Your task to perform on an android device: Set the phone to "Do not disturb". Image 0: 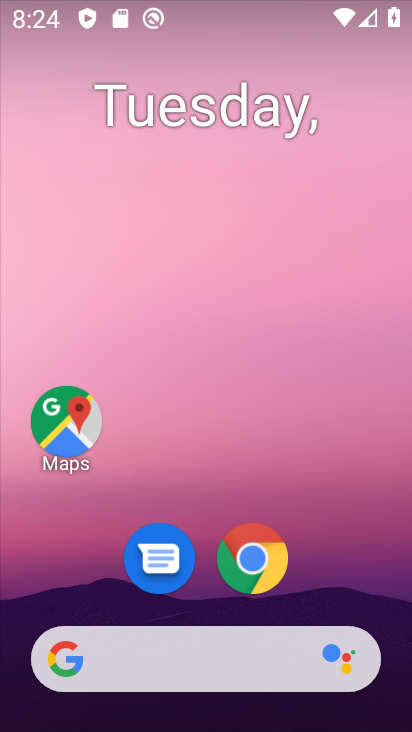
Step 0: drag from (201, 599) to (214, 236)
Your task to perform on an android device: Set the phone to "Do not disturb". Image 1: 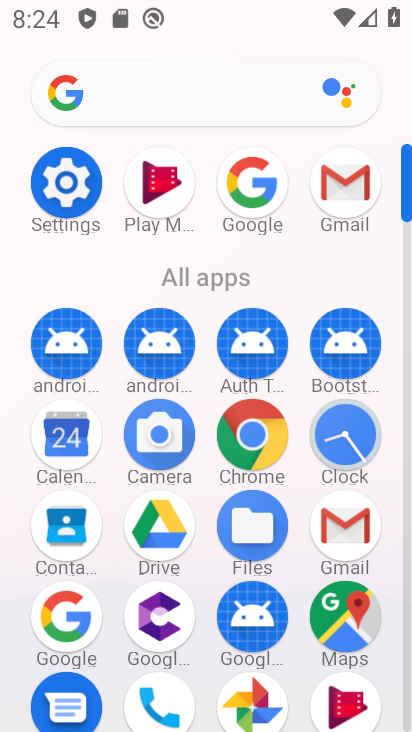
Step 1: click (79, 166)
Your task to perform on an android device: Set the phone to "Do not disturb". Image 2: 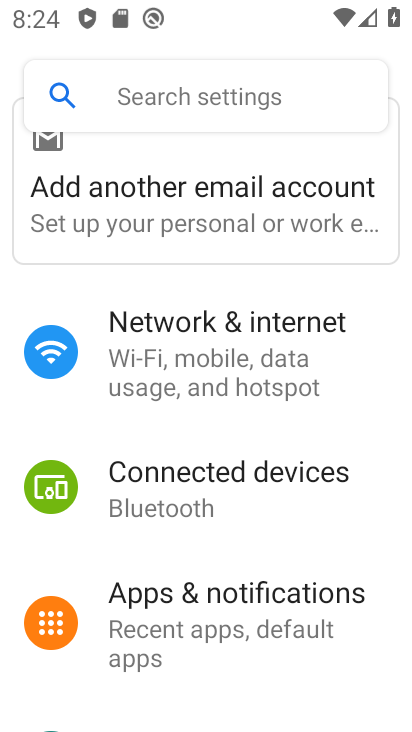
Step 2: drag from (235, 579) to (247, 328)
Your task to perform on an android device: Set the phone to "Do not disturb". Image 3: 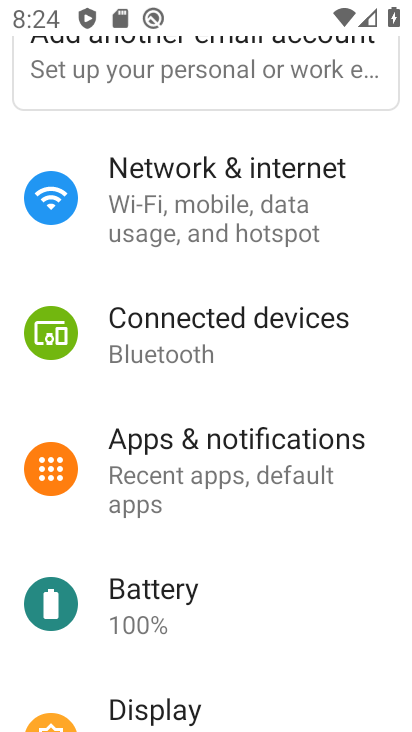
Step 3: drag from (249, 622) to (223, 315)
Your task to perform on an android device: Set the phone to "Do not disturb". Image 4: 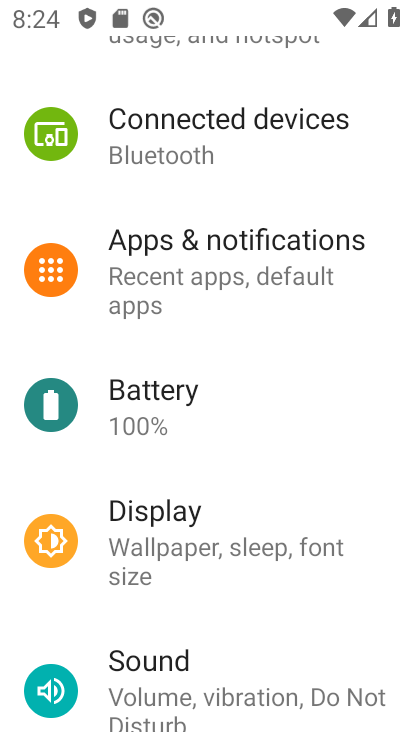
Step 4: click (230, 640)
Your task to perform on an android device: Set the phone to "Do not disturb". Image 5: 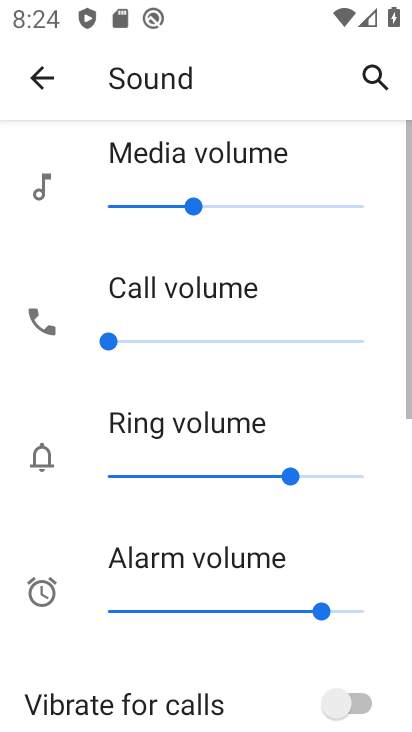
Step 5: drag from (227, 639) to (241, 275)
Your task to perform on an android device: Set the phone to "Do not disturb". Image 6: 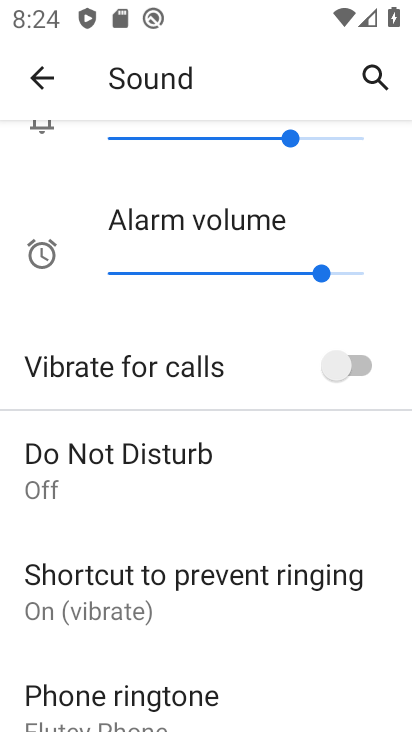
Step 6: click (159, 470)
Your task to perform on an android device: Set the phone to "Do not disturb". Image 7: 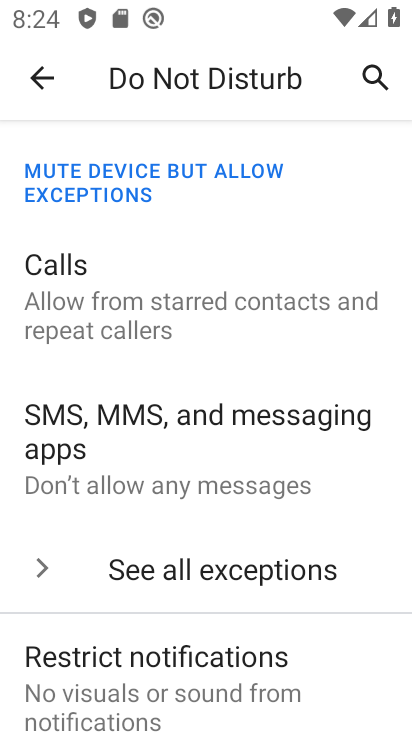
Step 7: drag from (225, 658) to (310, 211)
Your task to perform on an android device: Set the phone to "Do not disturb". Image 8: 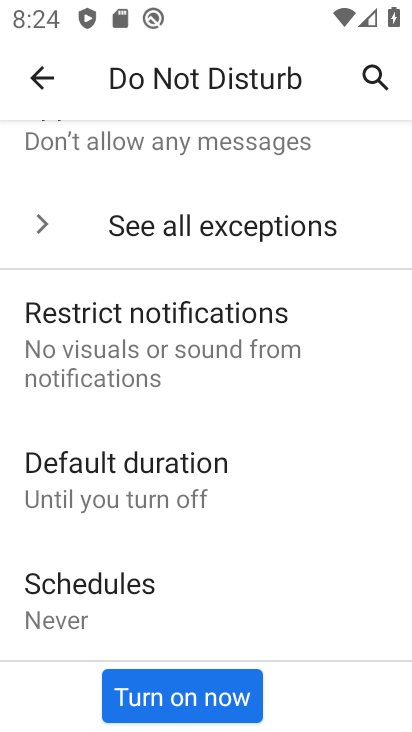
Step 8: click (214, 685)
Your task to perform on an android device: Set the phone to "Do not disturb". Image 9: 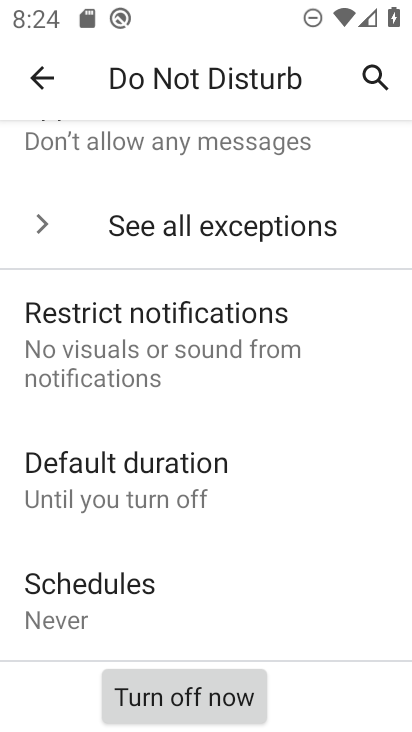
Step 9: task complete